Your task to perform on an android device: empty trash in the gmail app Image 0: 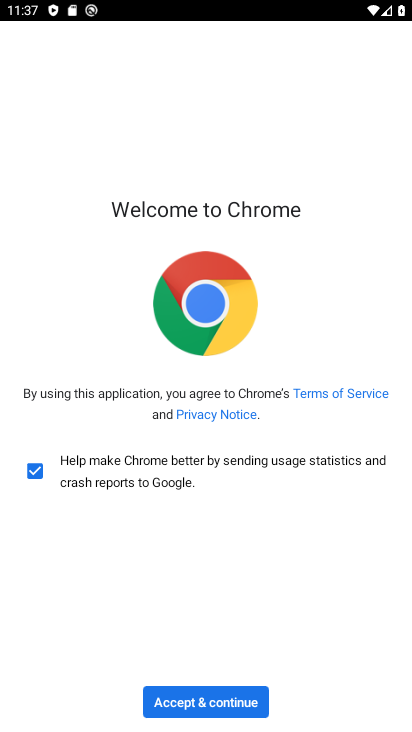
Step 0: press home button
Your task to perform on an android device: empty trash in the gmail app Image 1: 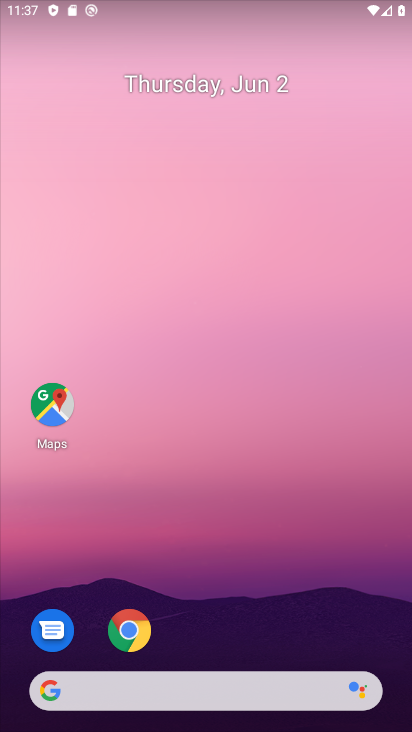
Step 1: drag from (247, 619) to (249, 38)
Your task to perform on an android device: empty trash in the gmail app Image 2: 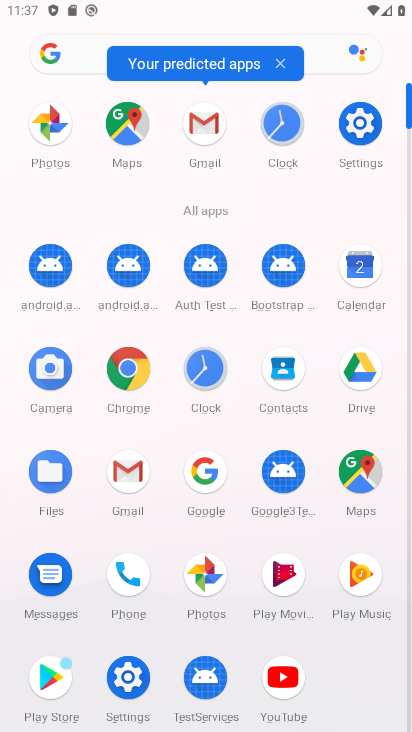
Step 2: click (213, 134)
Your task to perform on an android device: empty trash in the gmail app Image 3: 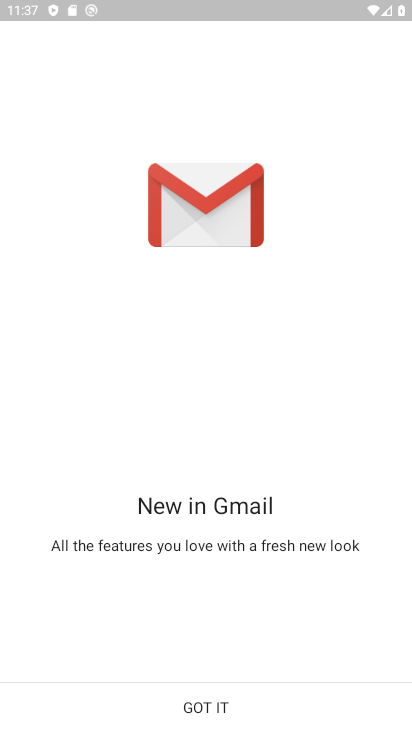
Step 3: click (200, 702)
Your task to perform on an android device: empty trash in the gmail app Image 4: 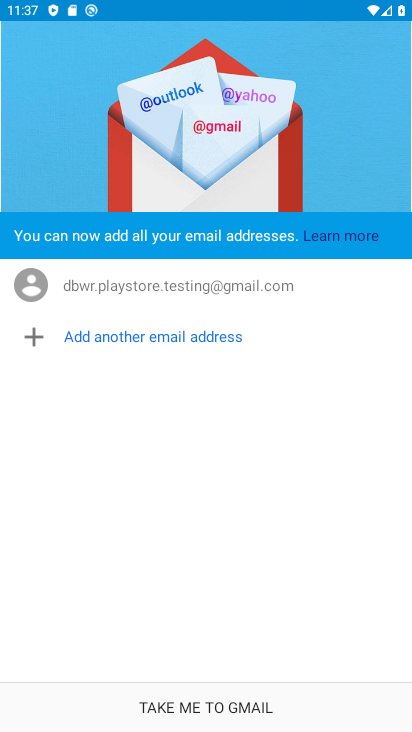
Step 4: click (200, 702)
Your task to perform on an android device: empty trash in the gmail app Image 5: 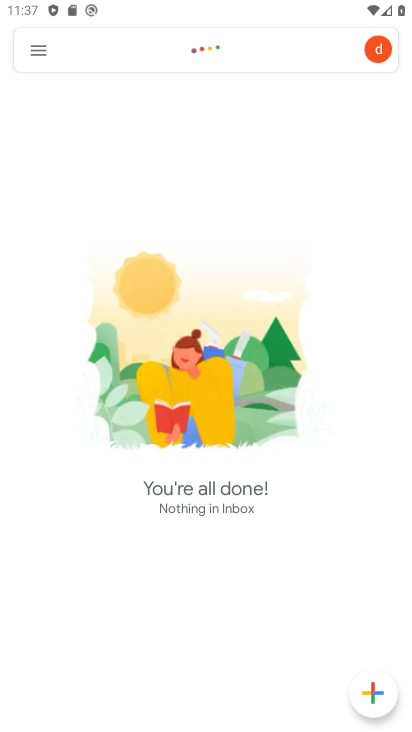
Step 5: click (40, 50)
Your task to perform on an android device: empty trash in the gmail app Image 6: 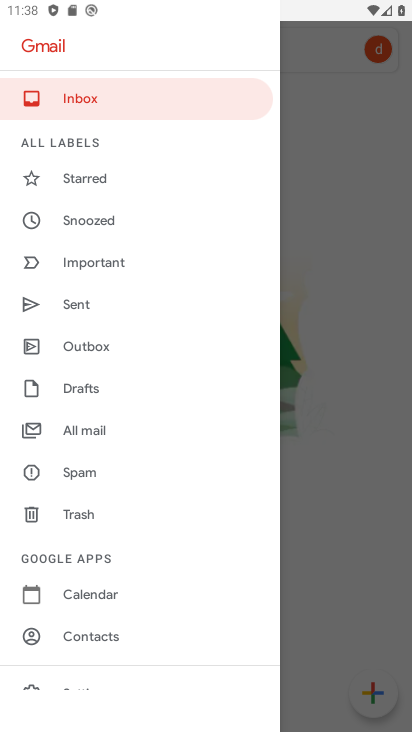
Step 6: click (88, 523)
Your task to perform on an android device: empty trash in the gmail app Image 7: 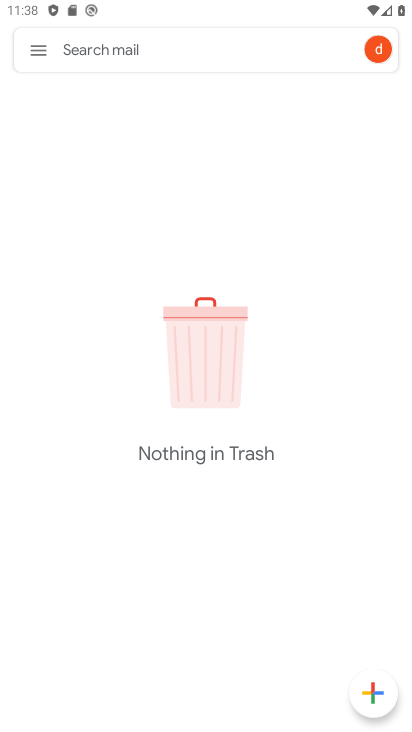
Step 7: task complete